Your task to perform on an android device: change the clock display to analog Image 0: 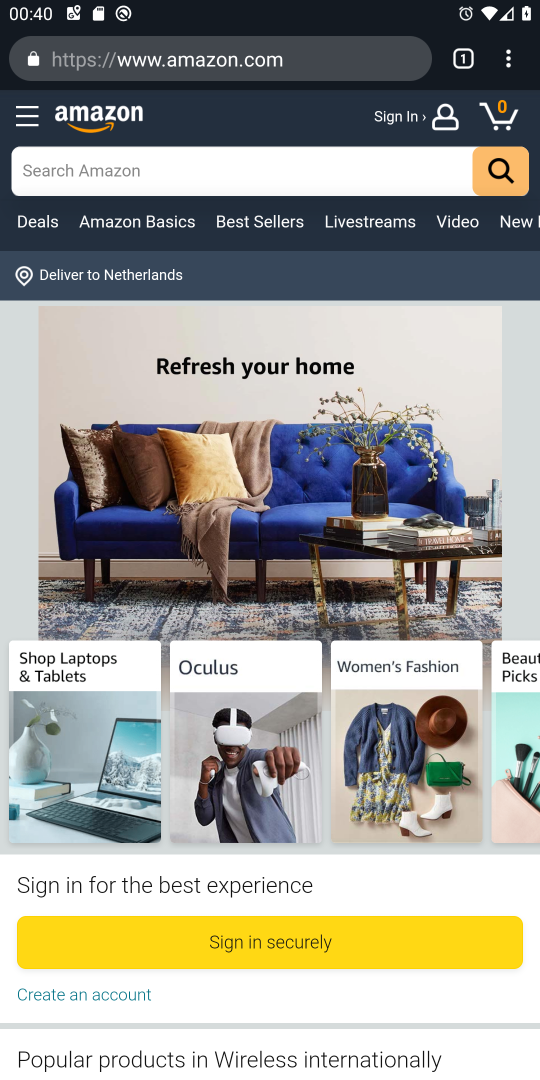
Step 0: press home button
Your task to perform on an android device: change the clock display to analog Image 1: 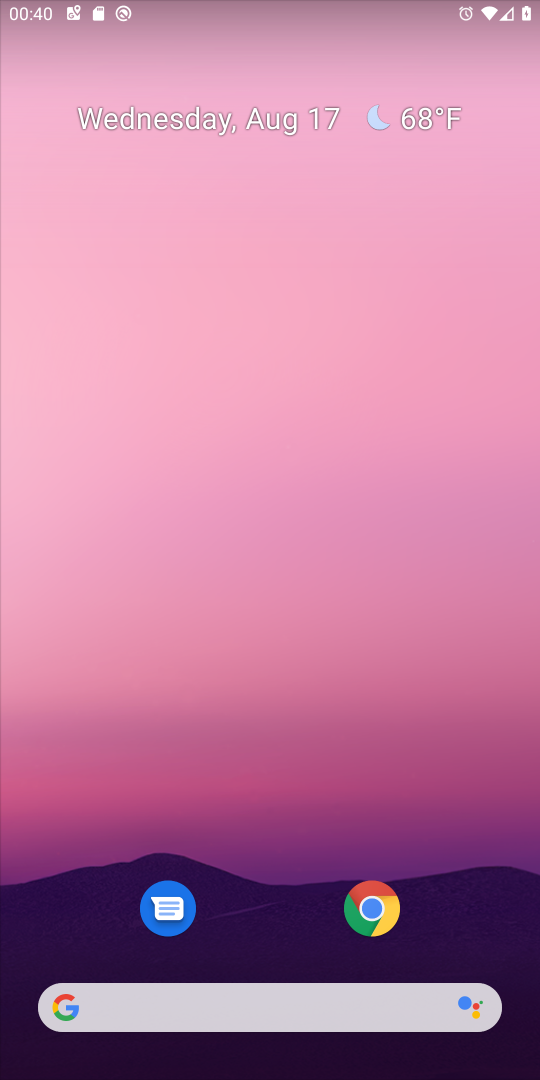
Step 1: drag from (254, 886) to (274, 202)
Your task to perform on an android device: change the clock display to analog Image 2: 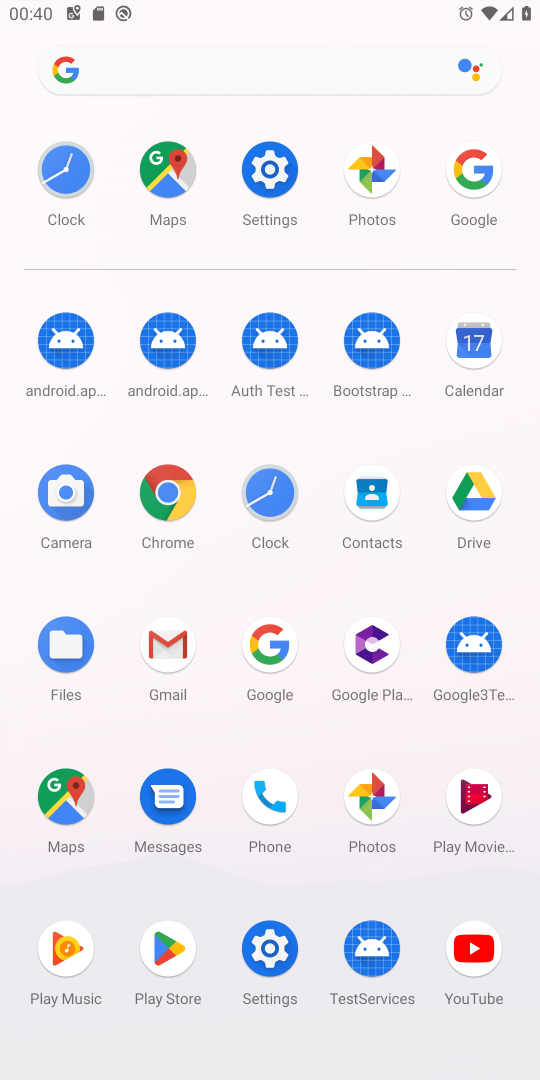
Step 2: click (280, 506)
Your task to perform on an android device: change the clock display to analog Image 3: 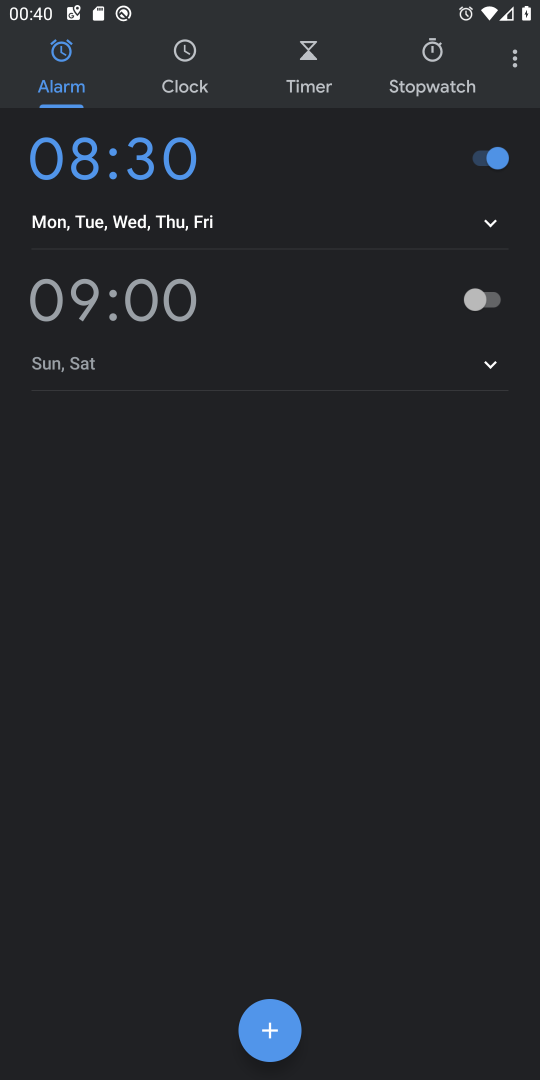
Step 3: click (518, 59)
Your task to perform on an android device: change the clock display to analog Image 4: 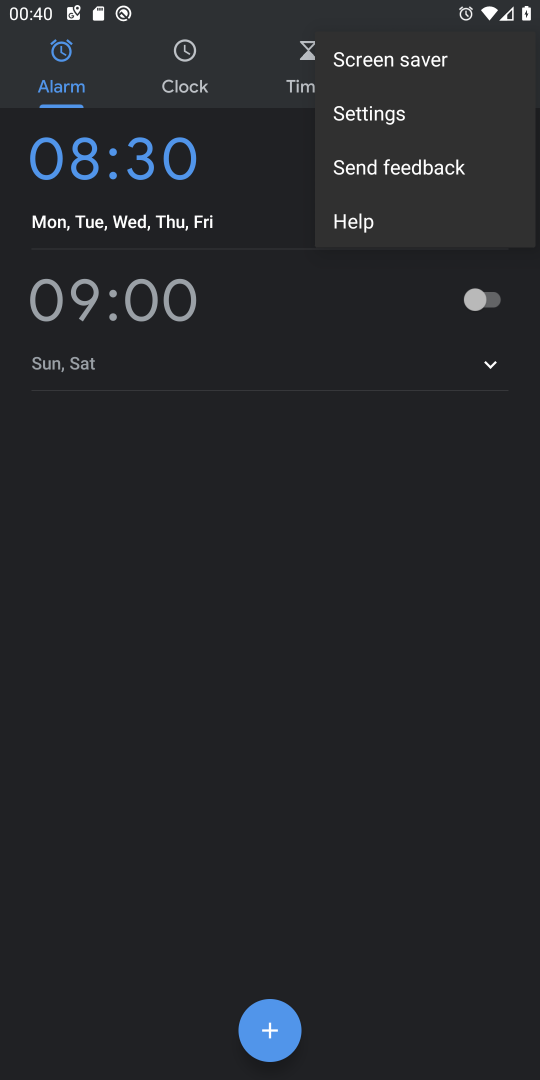
Step 4: click (389, 109)
Your task to perform on an android device: change the clock display to analog Image 5: 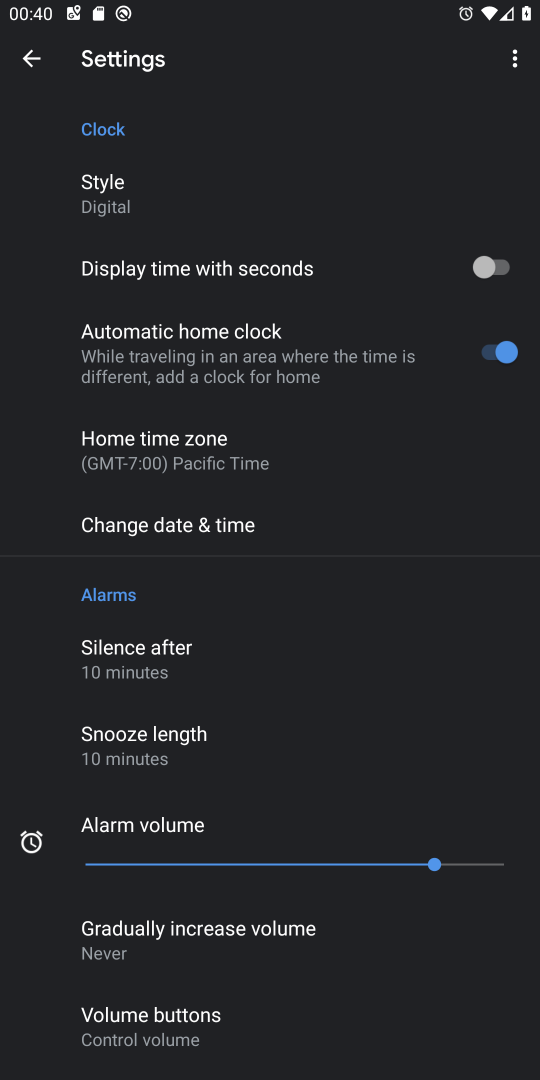
Step 5: click (161, 182)
Your task to perform on an android device: change the clock display to analog Image 6: 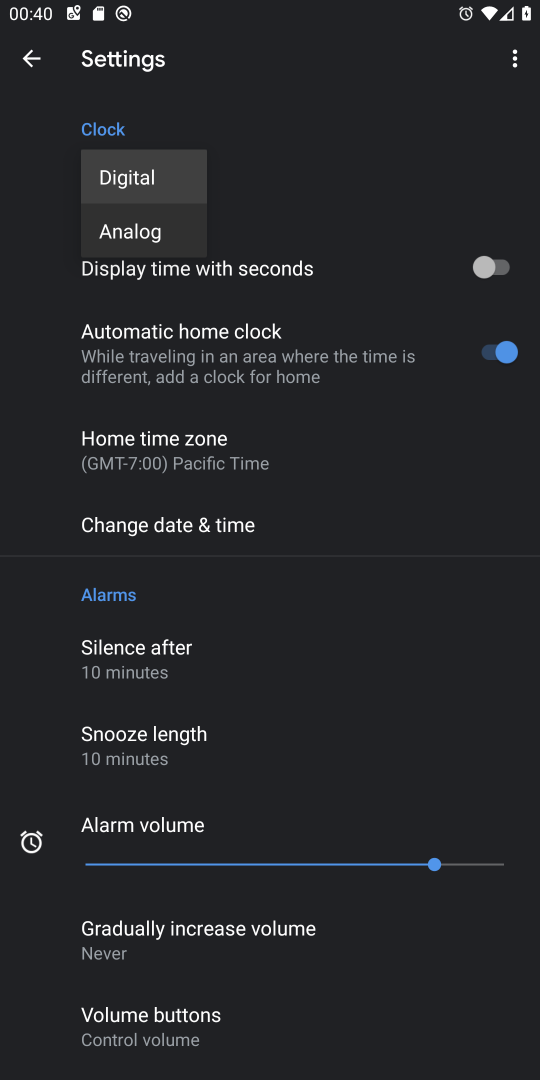
Step 6: click (152, 229)
Your task to perform on an android device: change the clock display to analog Image 7: 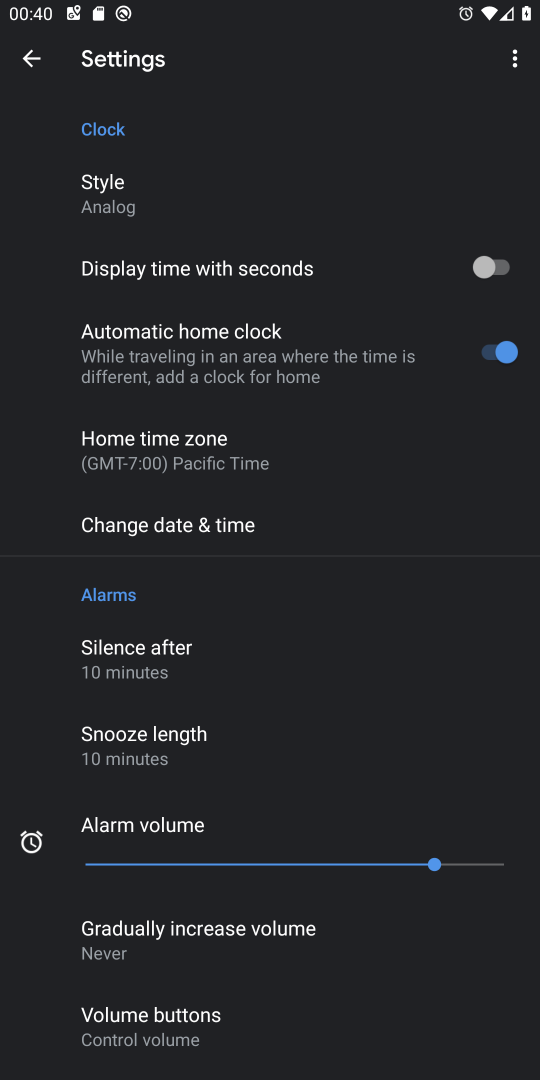
Step 7: task complete